Your task to perform on an android device: Clear all items from cart on bestbuy.com. Add dell alienware to the cart on bestbuy.com, then select checkout. Image 0: 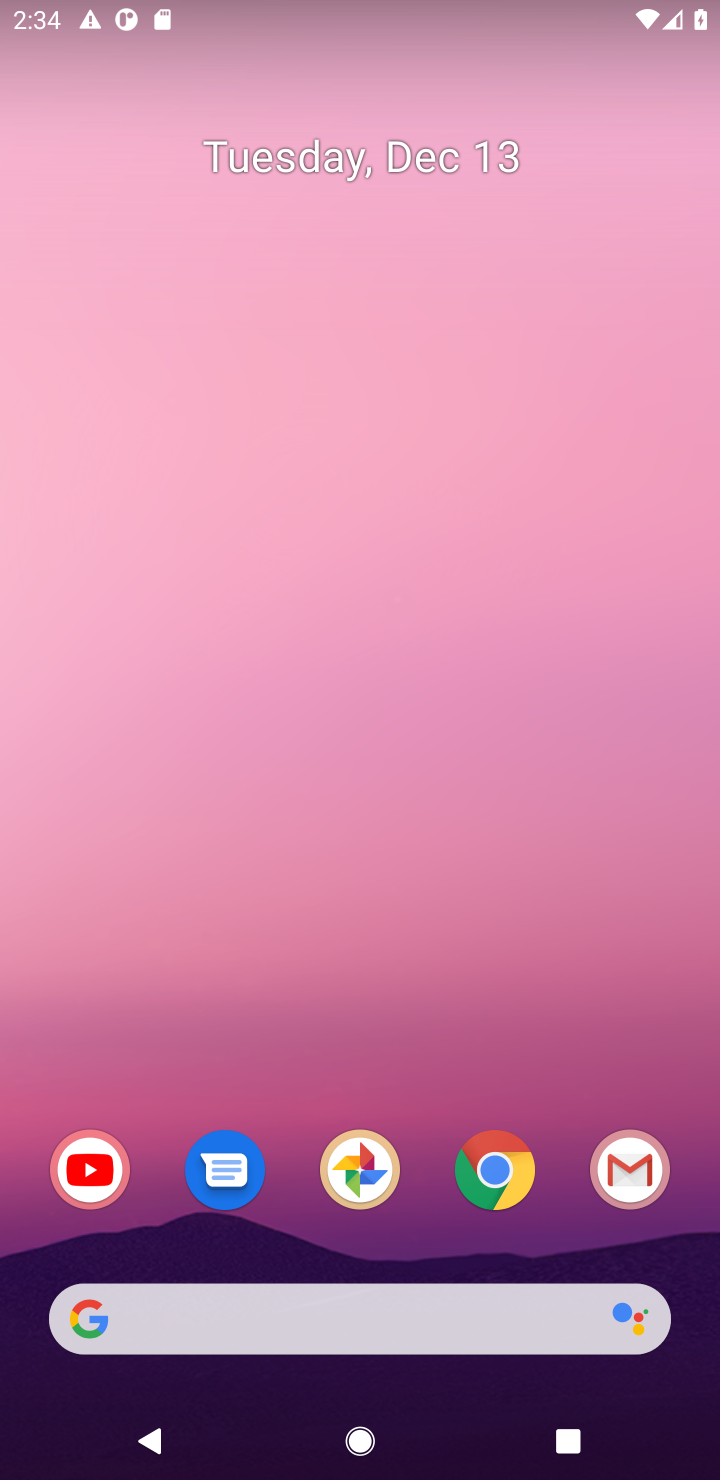
Step 0: press home button
Your task to perform on an android device: Clear all items from cart on bestbuy.com. Add dell alienware to the cart on bestbuy.com, then select checkout. Image 1: 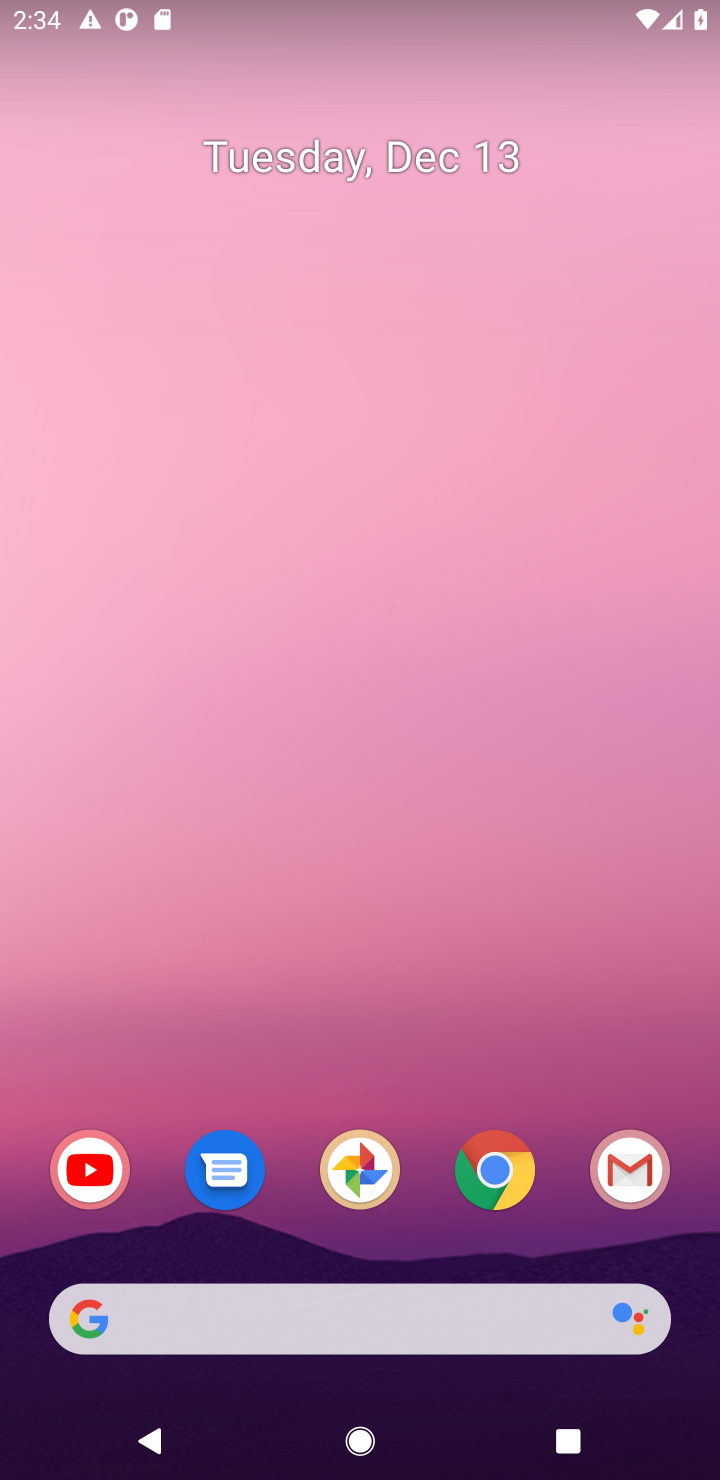
Step 1: click (314, 1313)
Your task to perform on an android device: Clear all items from cart on bestbuy.com. Add dell alienware to the cart on bestbuy.com, then select checkout. Image 2: 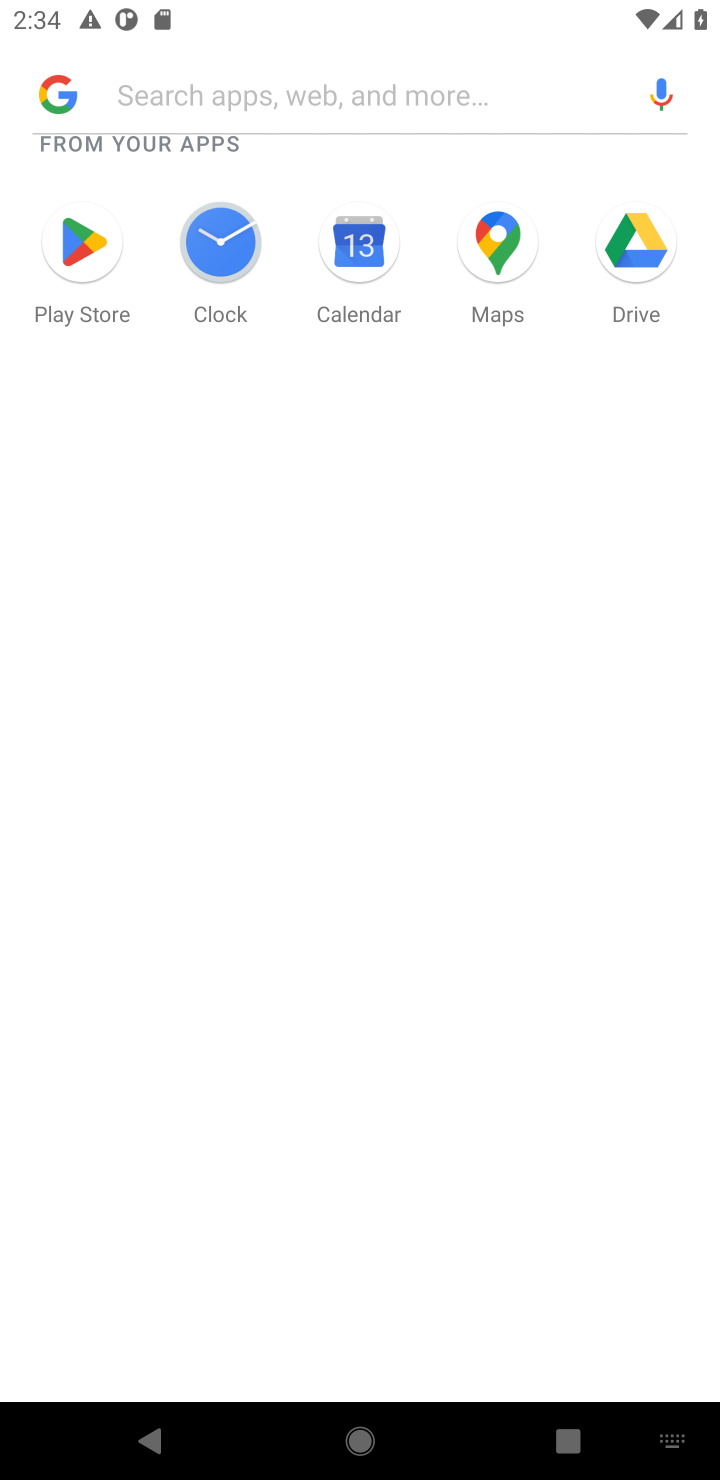
Step 2: press back button
Your task to perform on an android device: Clear all items from cart on bestbuy.com. Add dell alienware to the cart on bestbuy.com, then select checkout. Image 3: 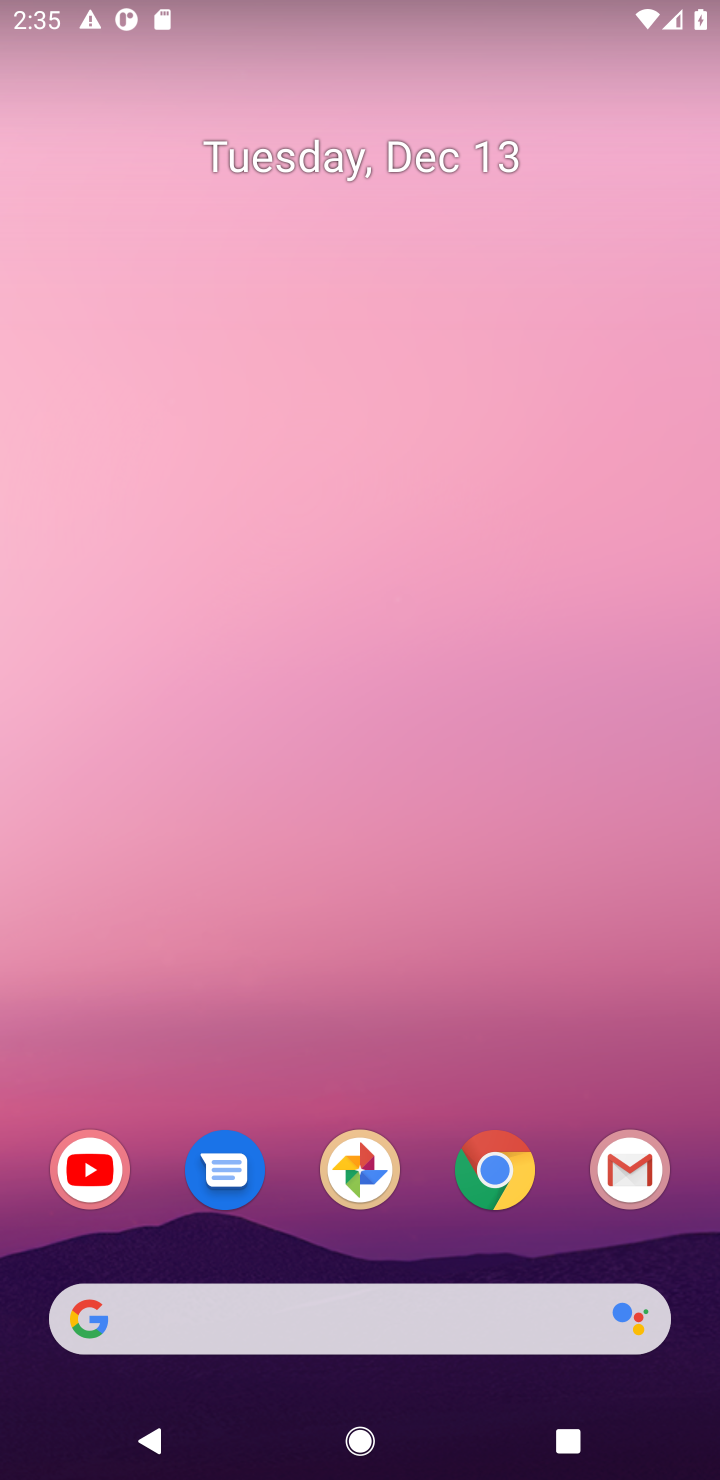
Step 3: click (497, 1170)
Your task to perform on an android device: Clear all items from cart on bestbuy.com. Add dell alienware to the cart on bestbuy.com, then select checkout. Image 4: 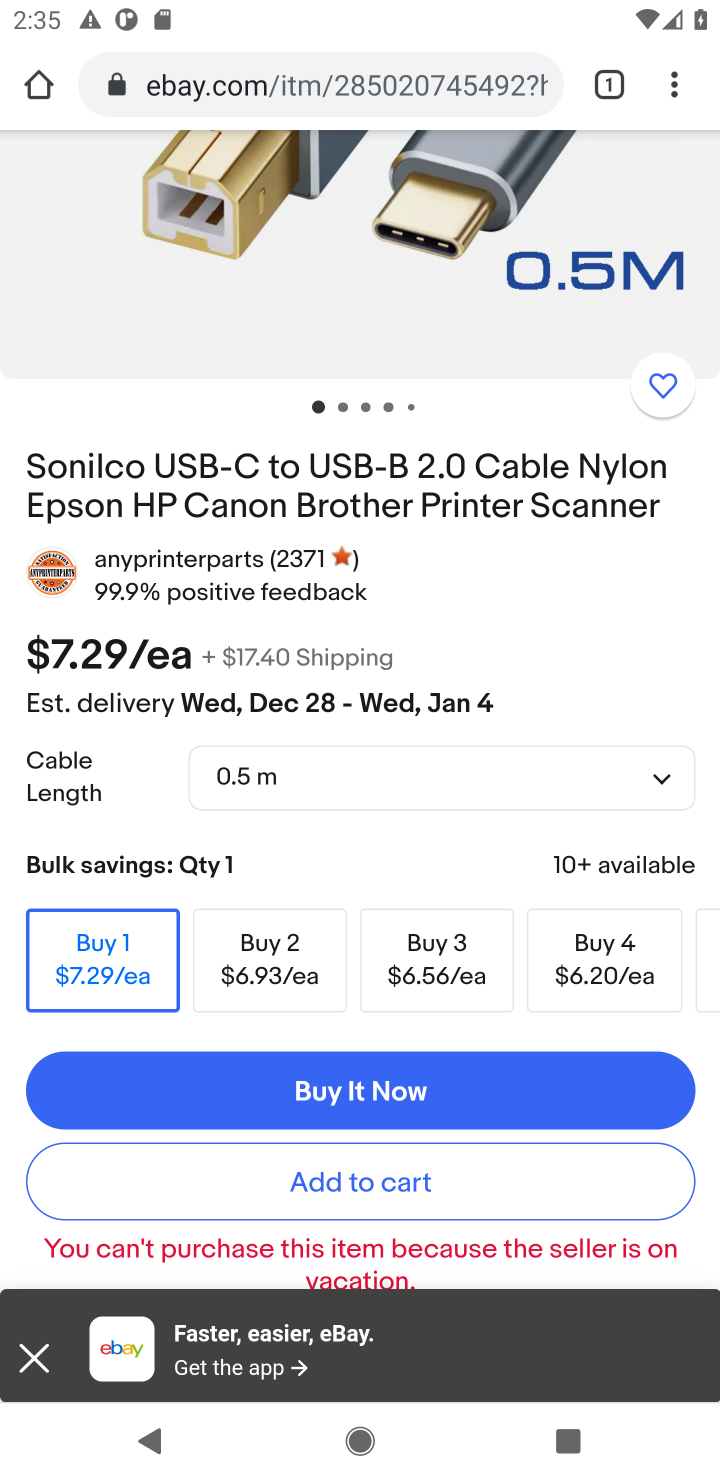
Step 4: click (357, 81)
Your task to perform on an android device: Clear all items from cart on bestbuy.com. Add dell alienware to the cart on bestbuy.com, then select checkout. Image 5: 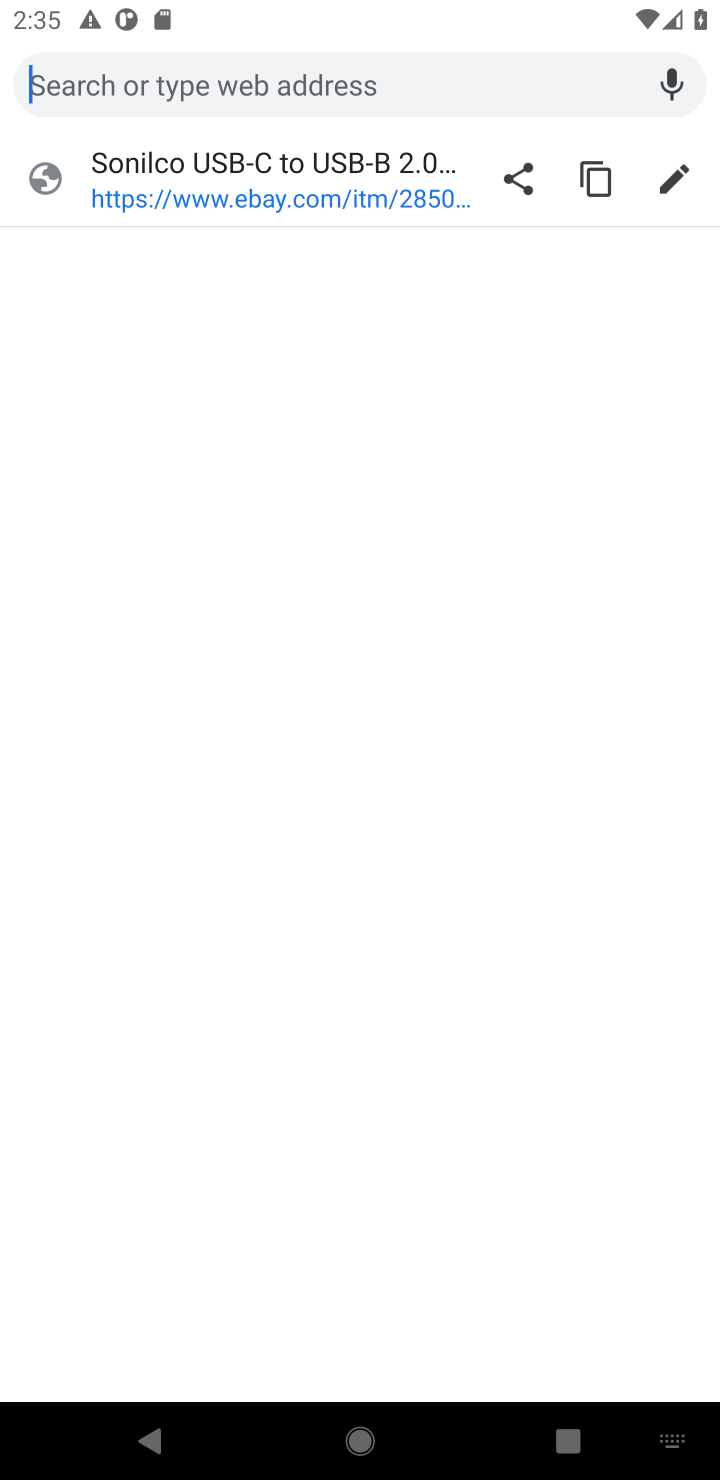
Step 5: type "bestbuy.com"
Your task to perform on an android device: Clear all items from cart on bestbuy.com. Add dell alienware to the cart on bestbuy.com, then select checkout. Image 6: 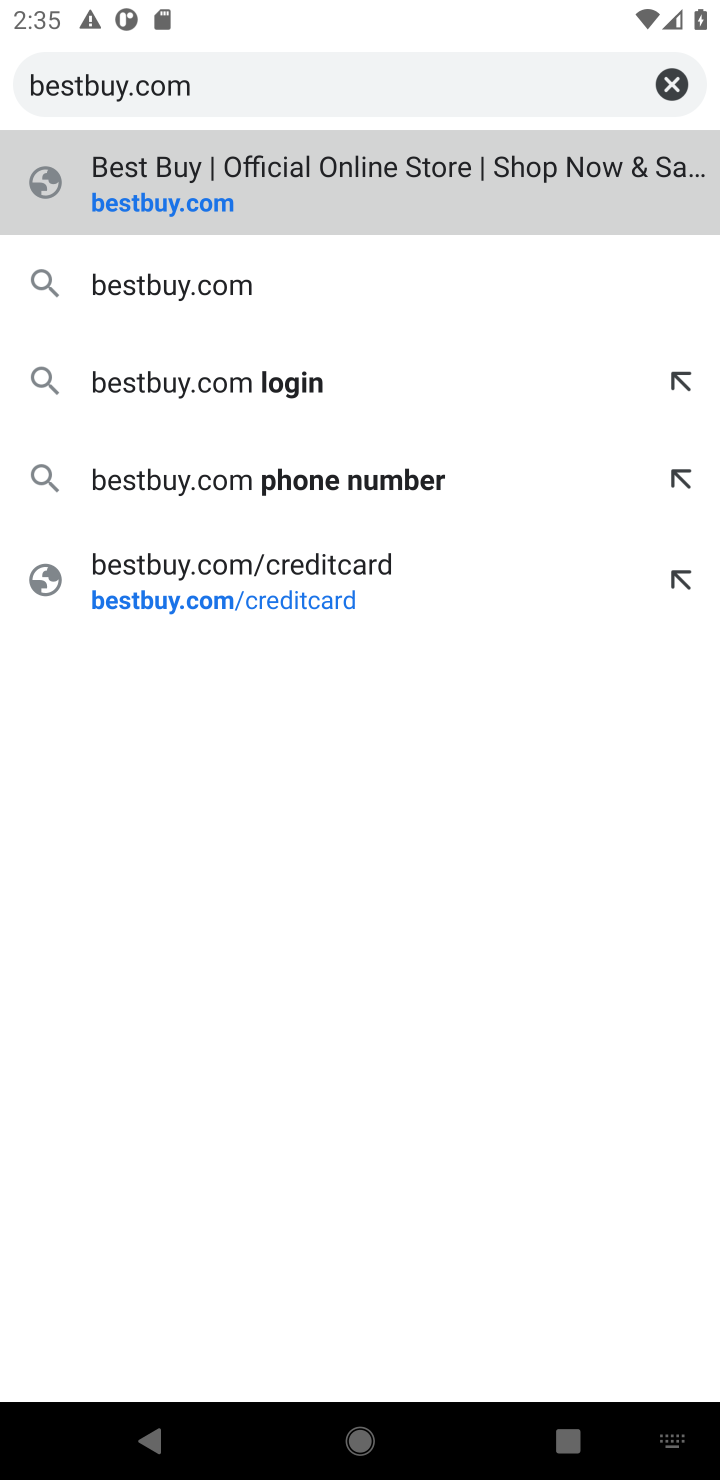
Step 6: click (127, 184)
Your task to perform on an android device: Clear all items from cart on bestbuy.com. Add dell alienware to the cart on bestbuy.com, then select checkout. Image 7: 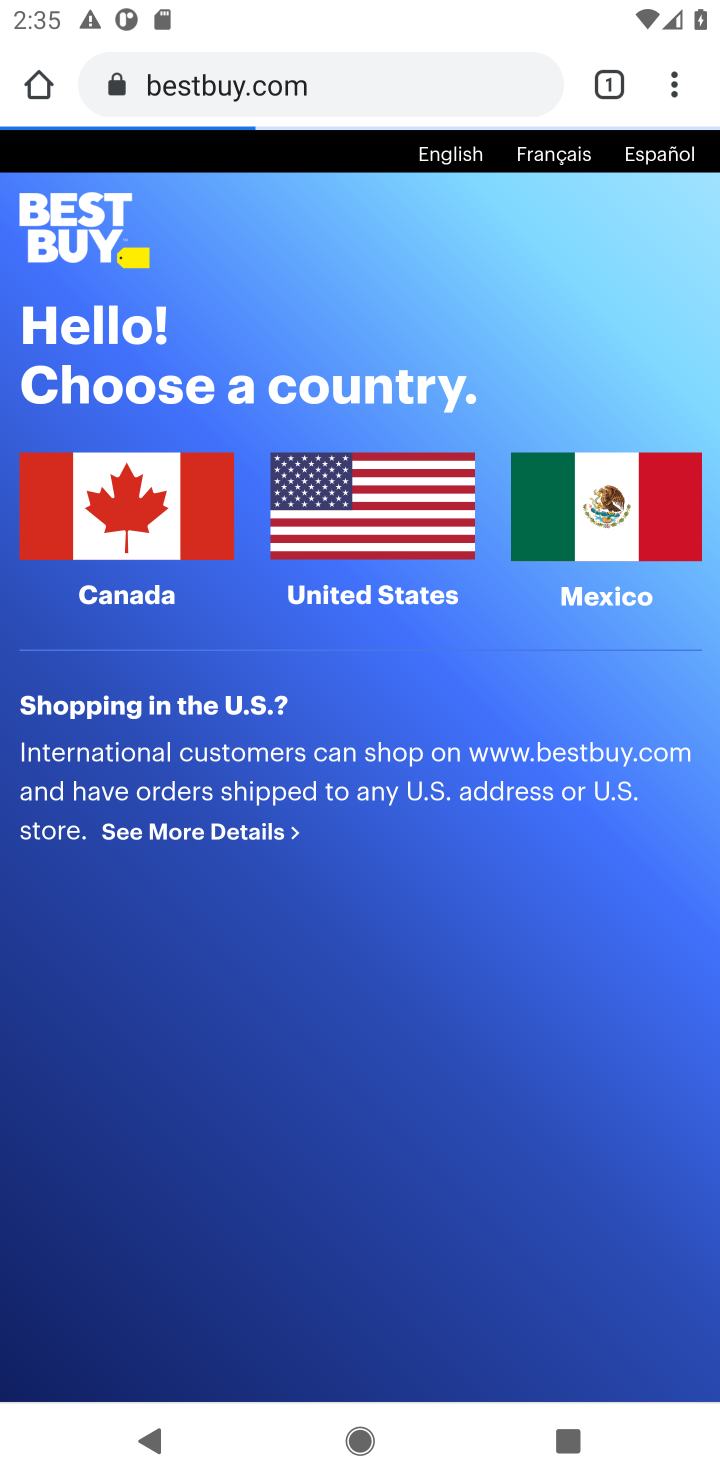
Step 7: click (294, 532)
Your task to perform on an android device: Clear all items from cart on bestbuy.com. Add dell alienware to the cart on bestbuy.com, then select checkout. Image 8: 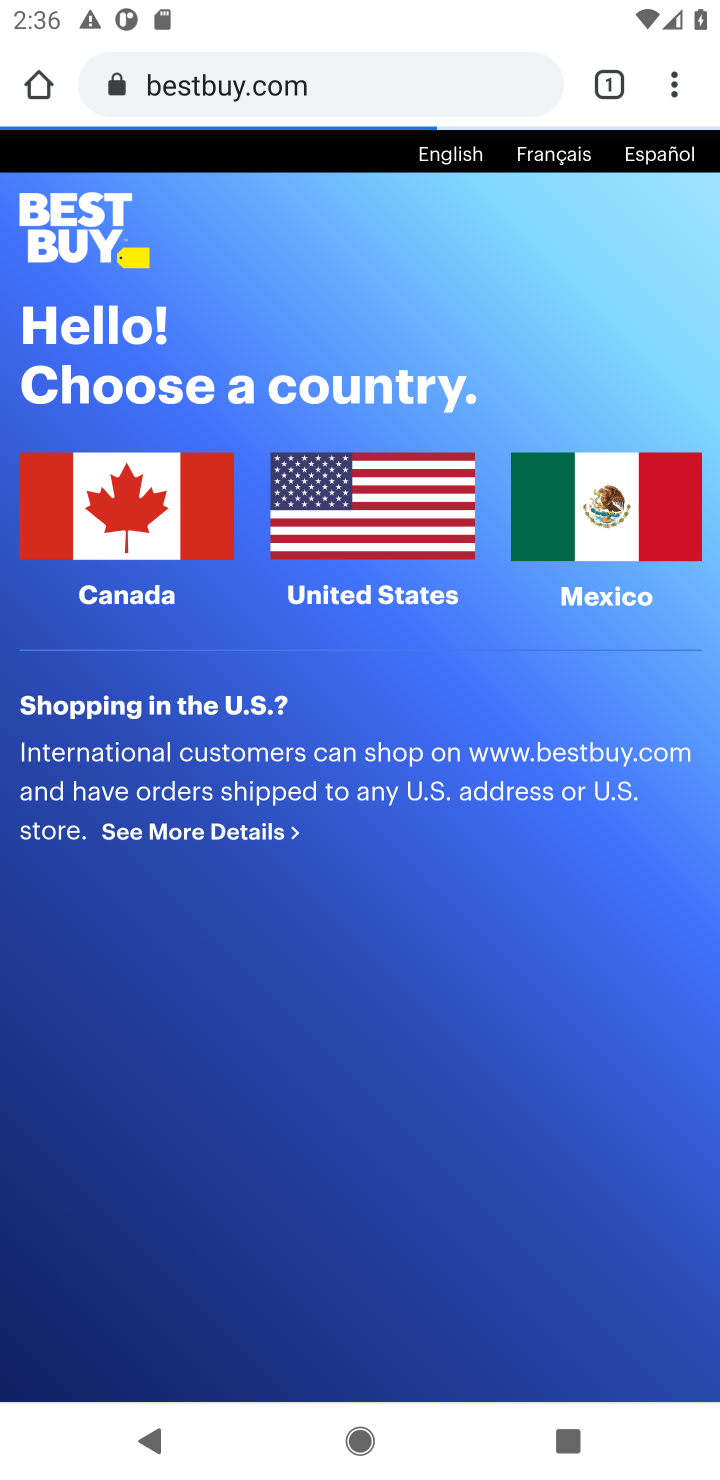
Step 8: click (334, 534)
Your task to perform on an android device: Clear all items from cart on bestbuy.com. Add dell alienware to the cart on bestbuy.com, then select checkout. Image 9: 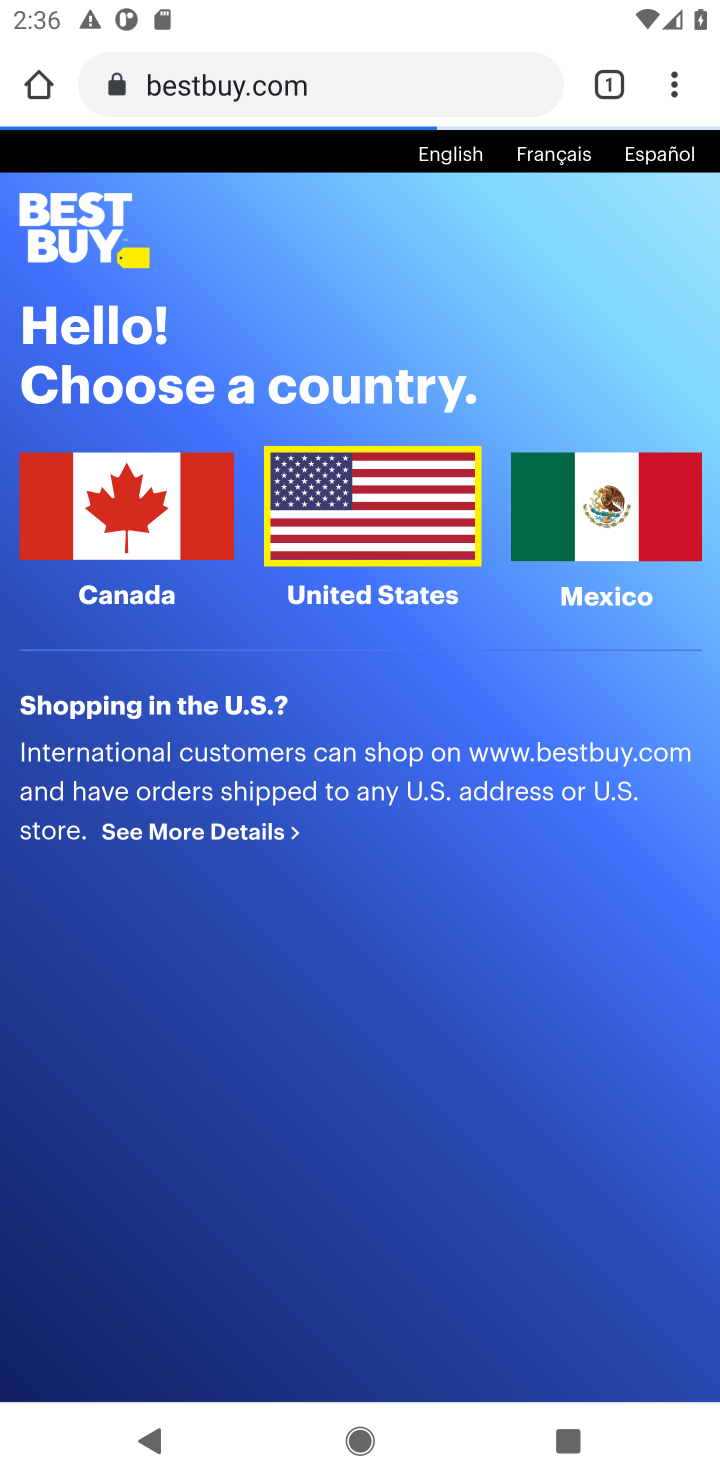
Step 9: click (334, 534)
Your task to perform on an android device: Clear all items from cart on bestbuy.com. Add dell alienware to the cart on bestbuy.com, then select checkout. Image 10: 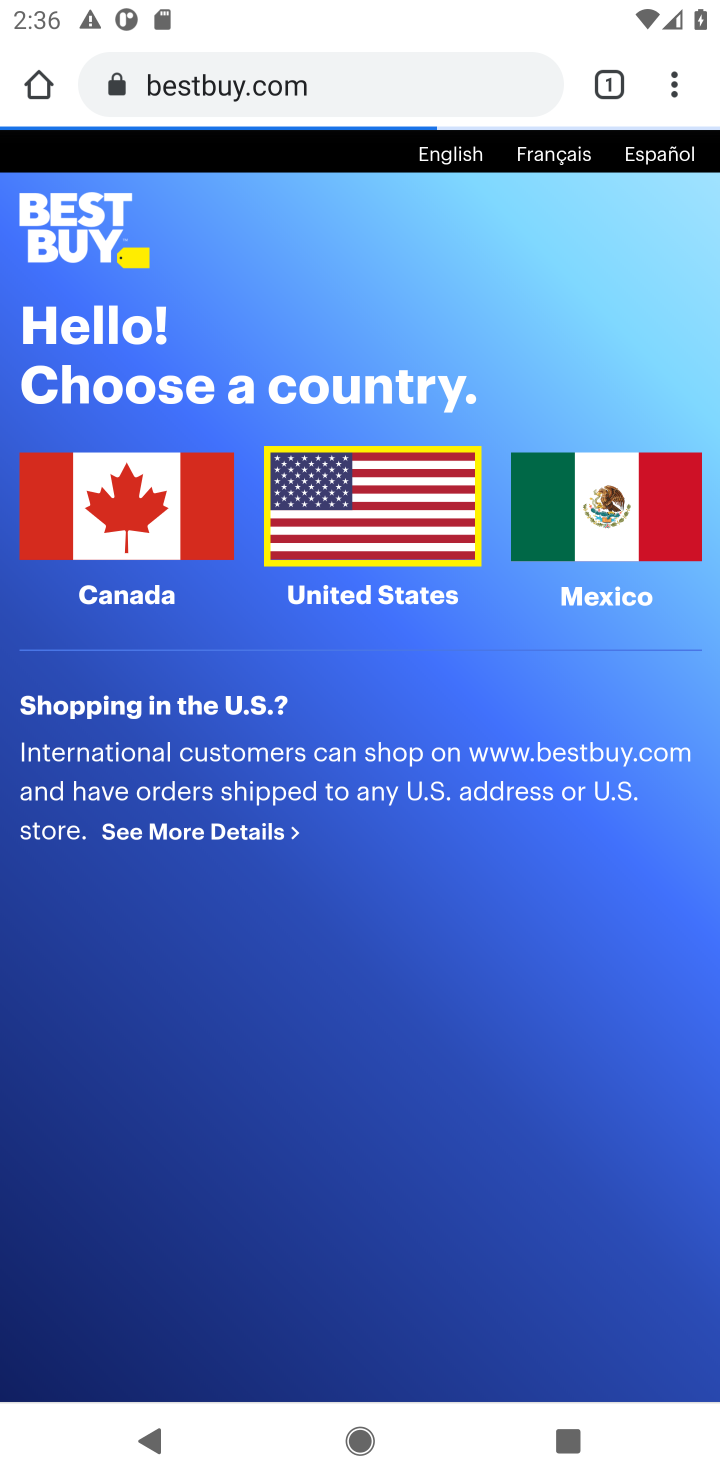
Step 10: click (334, 534)
Your task to perform on an android device: Clear all items from cart on bestbuy.com. Add dell alienware to the cart on bestbuy.com, then select checkout. Image 11: 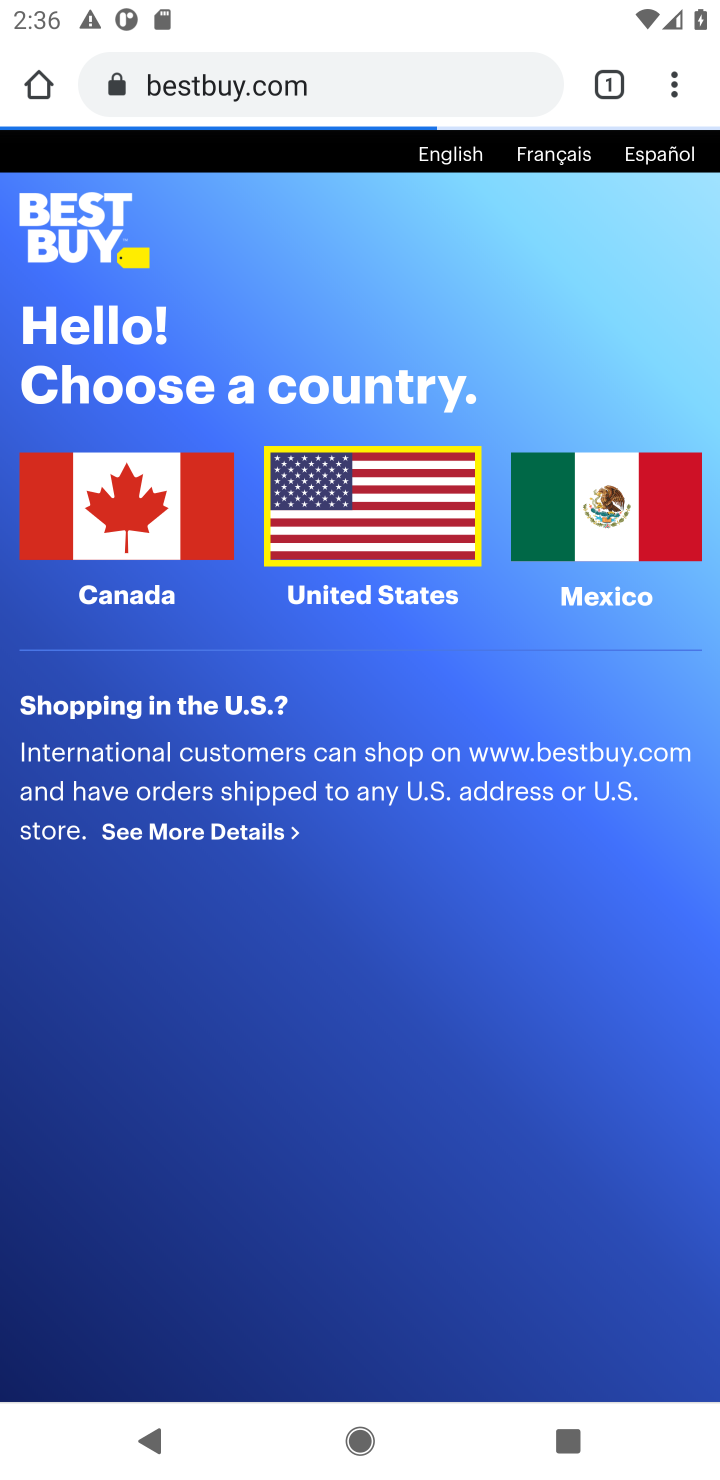
Step 11: click (334, 534)
Your task to perform on an android device: Clear all items from cart on bestbuy.com. Add dell alienware to the cart on bestbuy.com, then select checkout. Image 12: 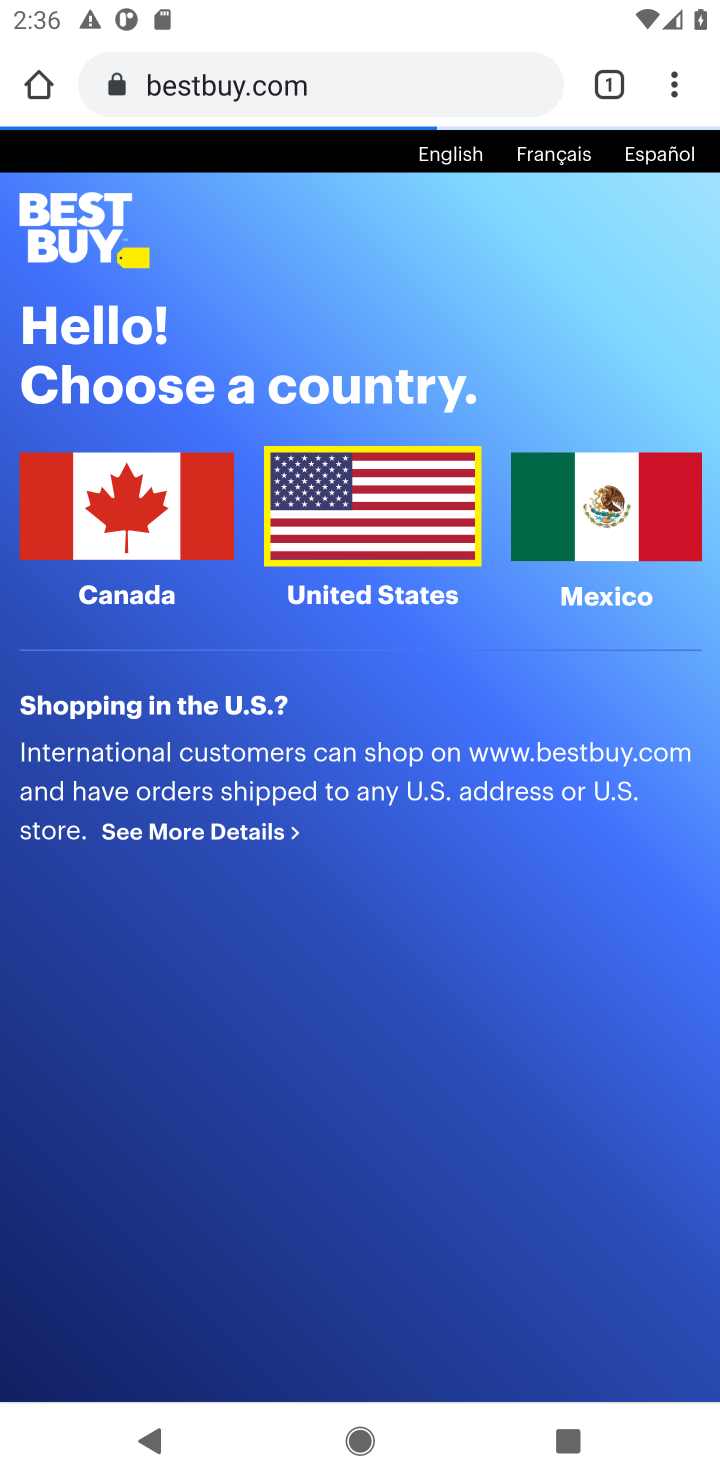
Step 12: click (334, 534)
Your task to perform on an android device: Clear all items from cart on bestbuy.com. Add dell alienware to the cart on bestbuy.com, then select checkout. Image 13: 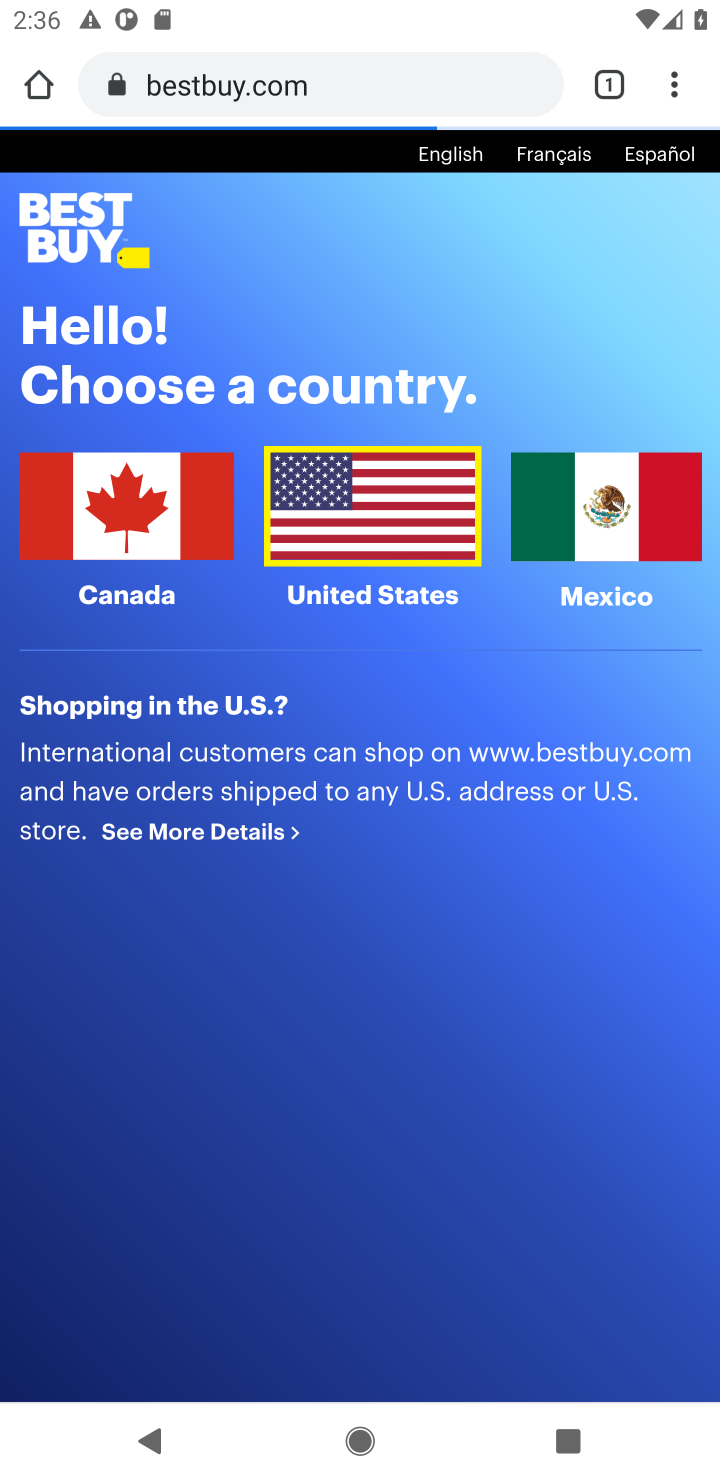
Step 13: click (334, 534)
Your task to perform on an android device: Clear all items from cart on bestbuy.com. Add dell alienware to the cart on bestbuy.com, then select checkout. Image 14: 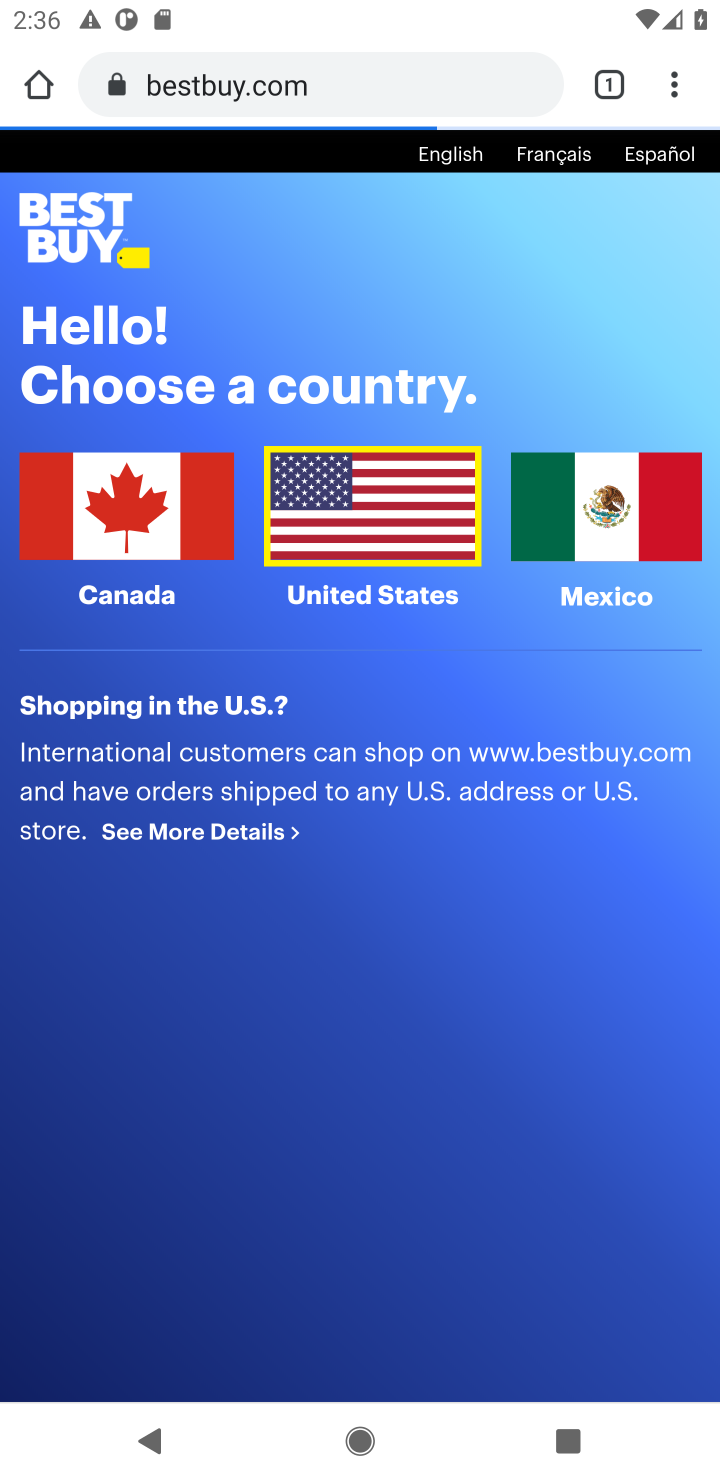
Step 14: click (334, 534)
Your task to perform on an android device: Clear all items from cart on bestbuy.com. Add dell alienware to the cart on bestbuy.com, then select checkout. Image 15: 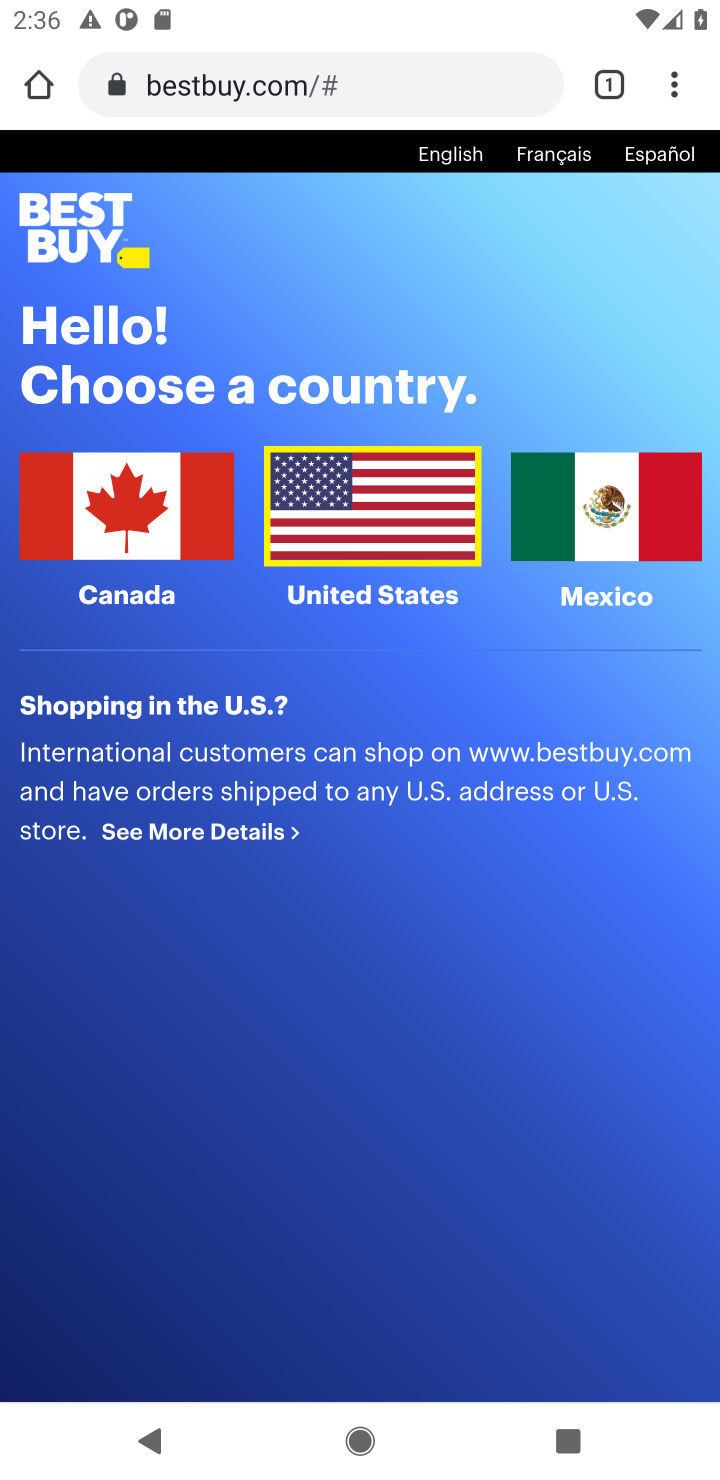
Step 15: click (334, 534)
Your task to perform on an android device: Clear all items from cart on bestbuy.com. Add dell alienware to the cart on bestbuy.com, then select checkout. Image 16: 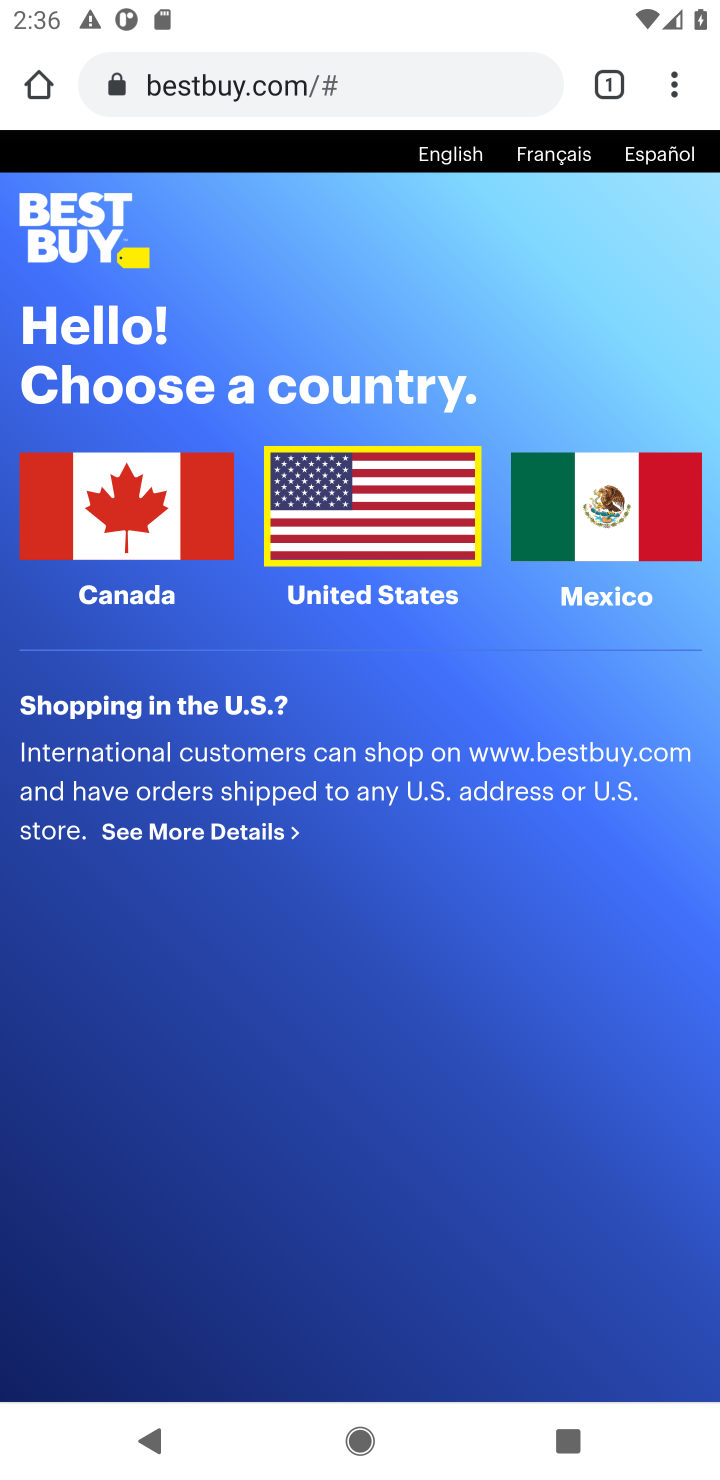
Step 16: click (334, 534)
Your task to perform on an android device: Clear all items from cart on bestbuy.com. Add dell alienware to the cart on bestbuy.com, then select checkout. Image 17: 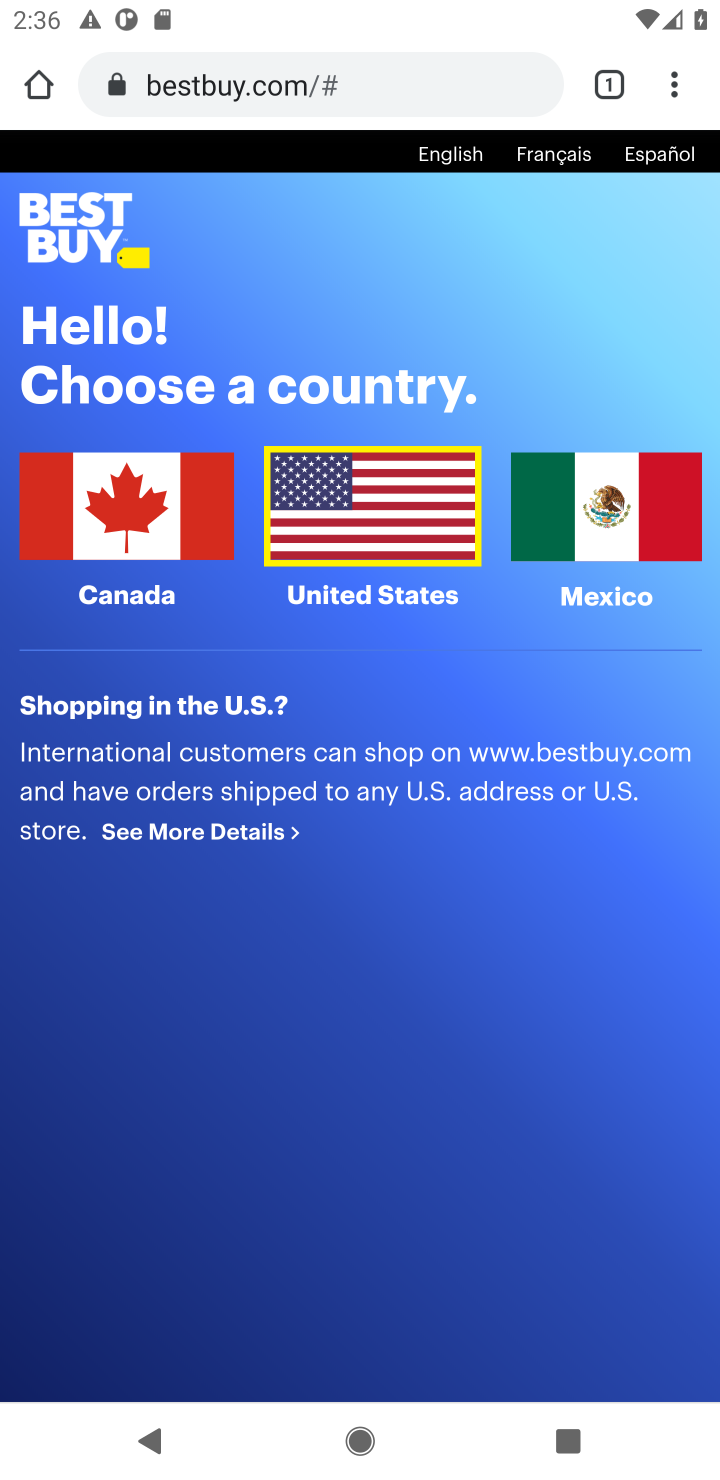
Step 17: click (393, 523)
Your task to perform on an android device: Clear all items from cart on bestbuy.com. Add dell alienware to the cart on bestbuy.com, then select checkout. Image 18: 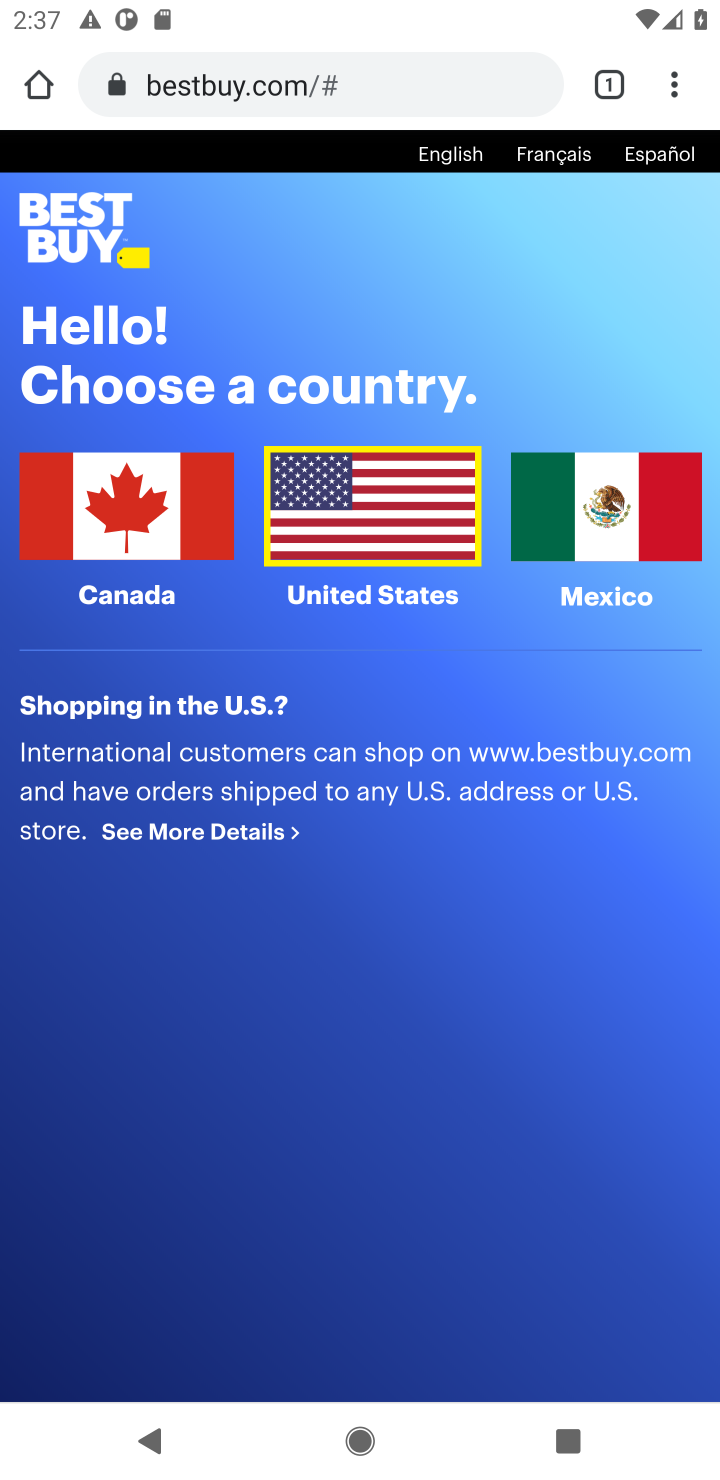
Step 18: click (393, 520)
Your task to perform on an android device: Clear all items from cart on bestbuy.com. Add dell alienware to the cart on bestbuy.com, then select checkout. Image 19: 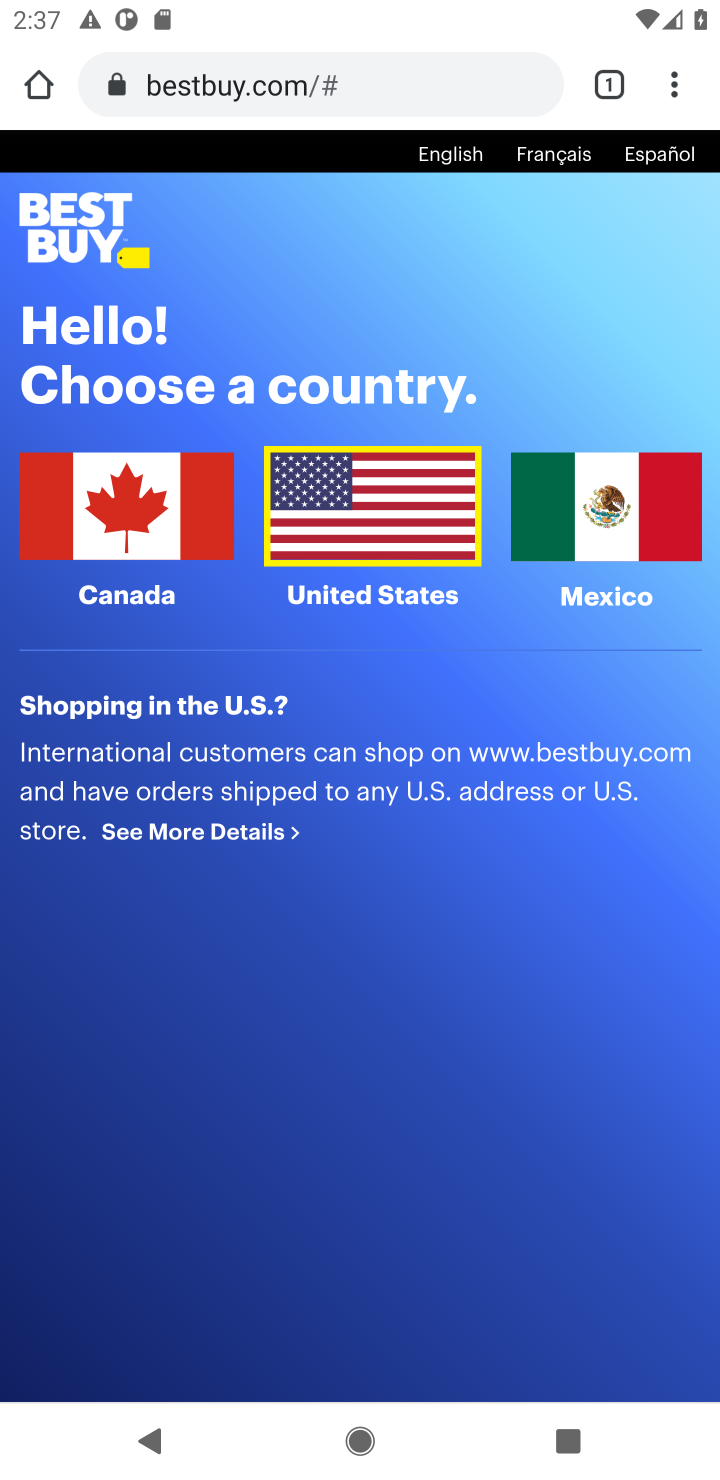
Step 19: click (341, 555)
Your task to perform on an android device: Clear all items from cart on bestbuy.com. Add dell alienware to the cart on bestbuy.com, then select checkout. Image 20: 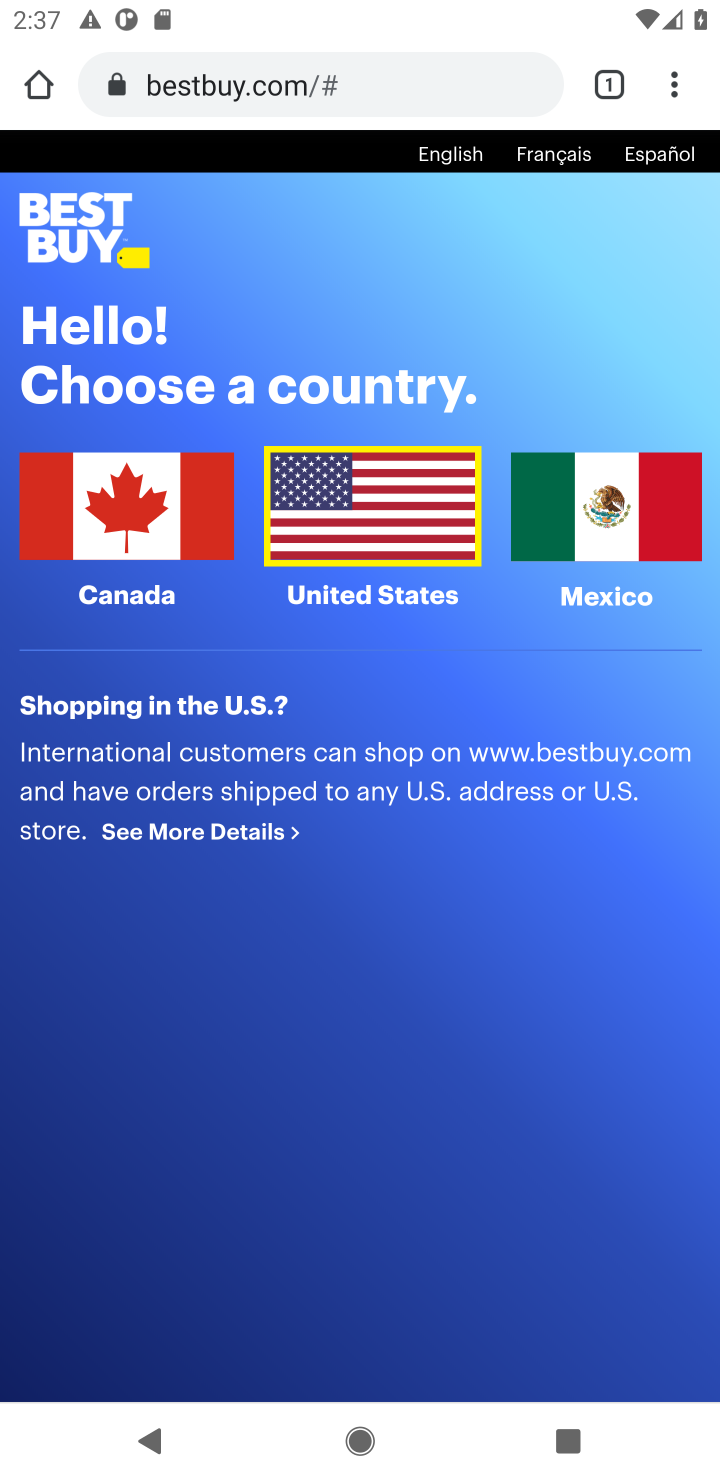
Step 20: click (341, 555)
Your task to perform on an android device: Clear all items from cart on bestbuy.com. Add dell alienware to the cart on bestbuy.com, then select checkout. Image 21: 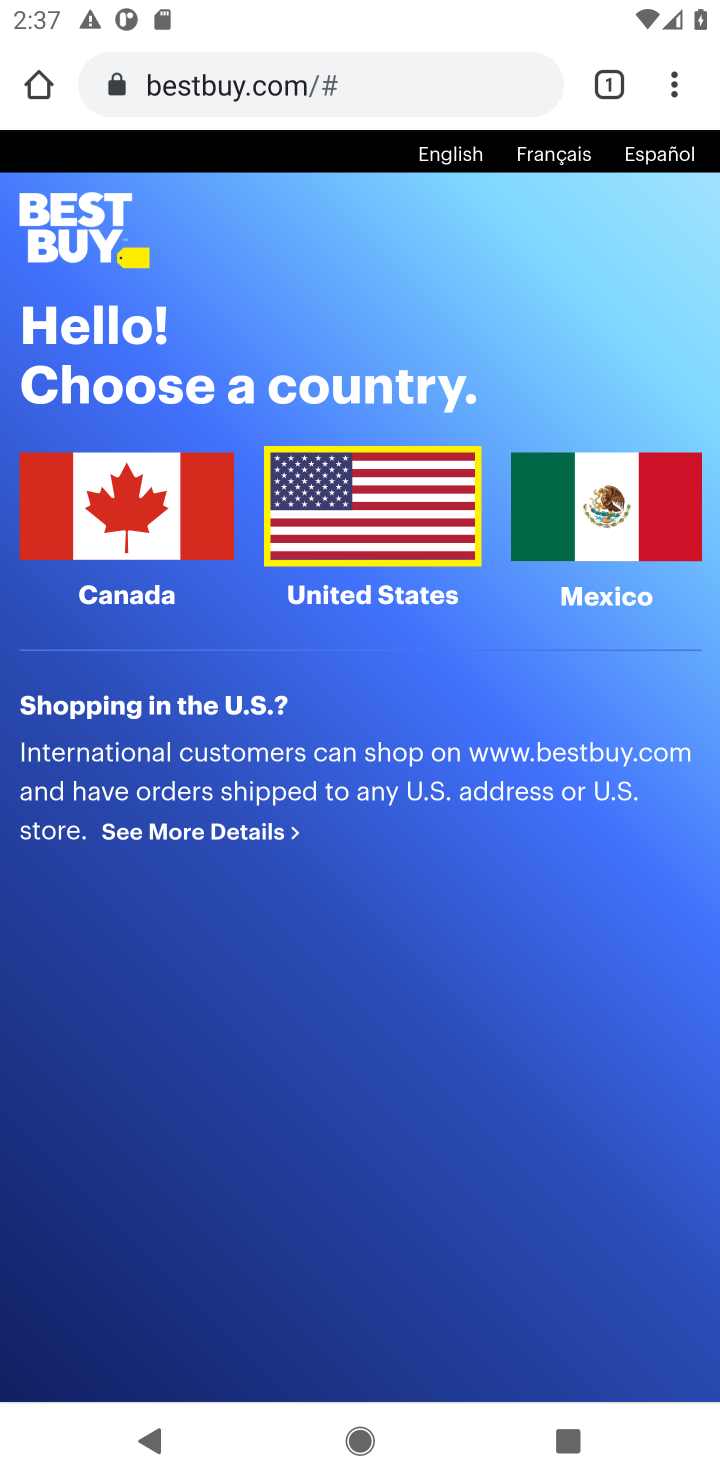
Step 21: click (341, 555)
Your task to perform on an android device: Clear all items from cart on bestbuy.com. Add dell alienware to the cart on bestbuy.com, then select checkout. Image 22: 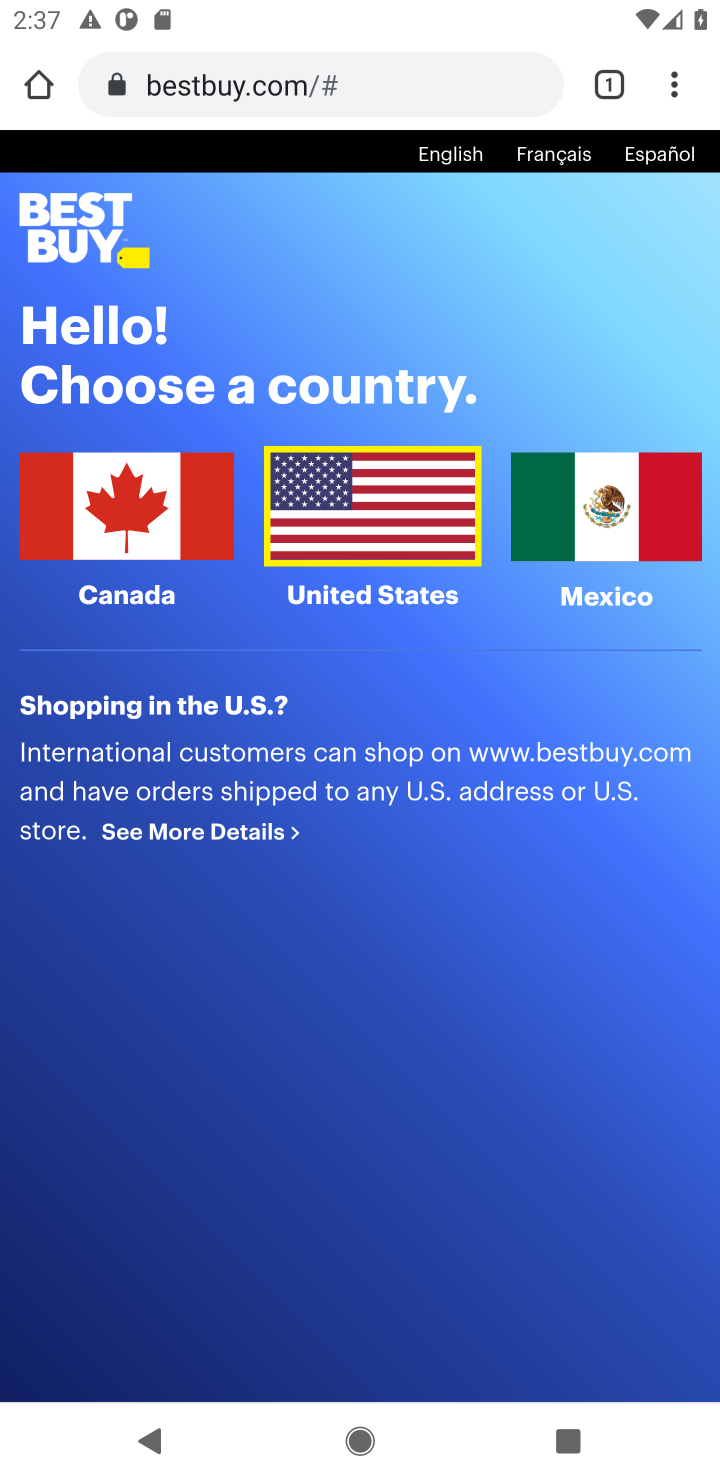
Step 22: click (341, 555)
Your task to perform on an android device: Clear all items from cart on bestbuy.com. Add dell alienware to the cart on bestbuy.com, then select checkout. Image 23: 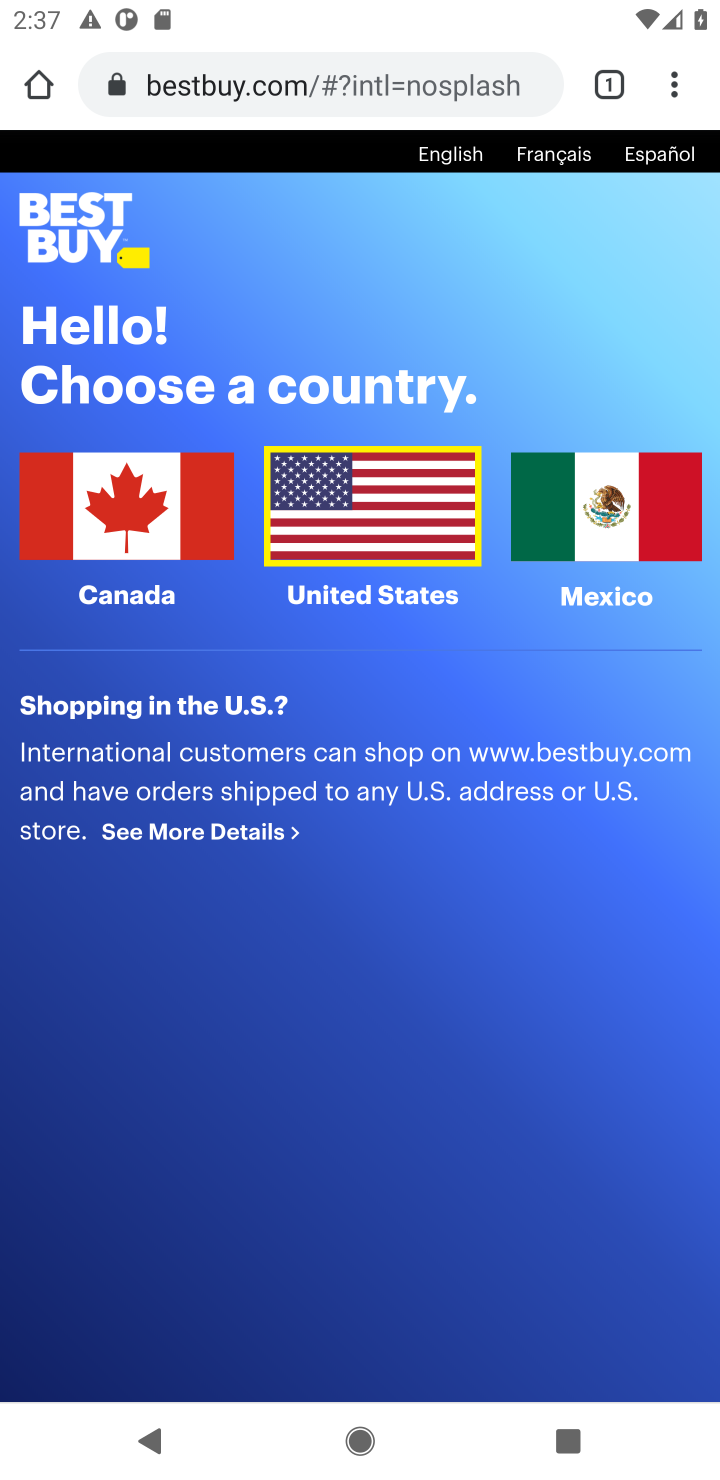
Step 23: task complete